Your task to perform on an android device: Go to Wikipedia Image 0: 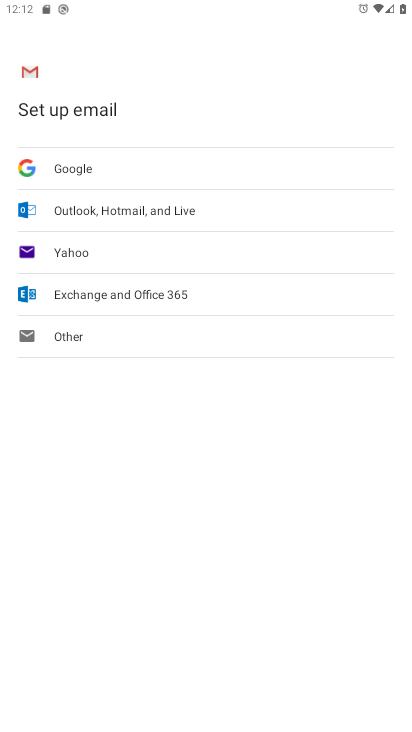
Step 0: press home button
Your task to perform on an android device: Go to Wikipedia Image 1: 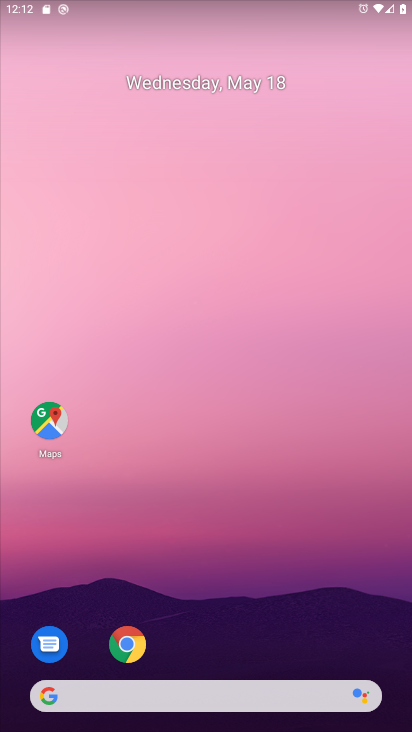
Step 1: click (121, 643)
Your task to perform on an android device: Go to Wikipedia Image 2: 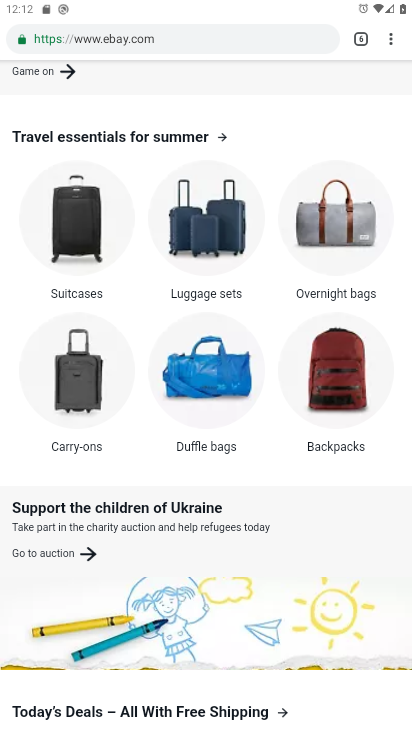
Step 2: click (363, 28)
Your task to perform on an android device: Go to Wikipedia Image 3: 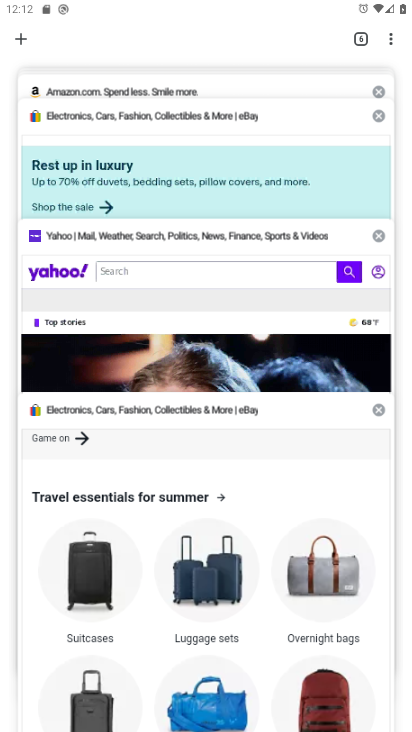
Step 3: drag from (133, 191) to (158, 504)
Your task to perform on an android device: Go to Wikipedia Image 4: 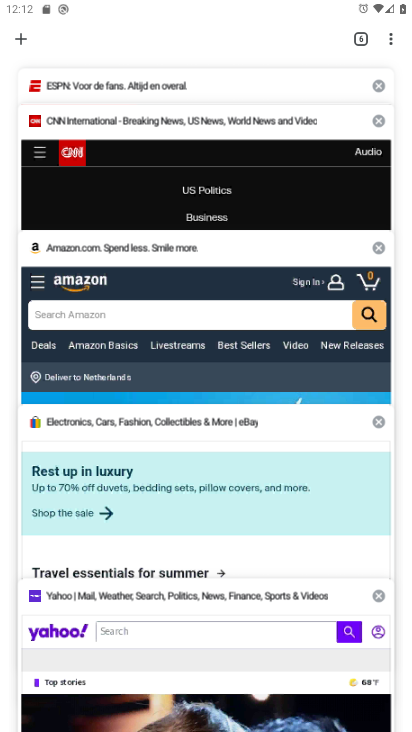
Step 4: drag from (122, 445) to (145, 263)
Your task to perform on an android device: Go to Wikipedia Image 5: 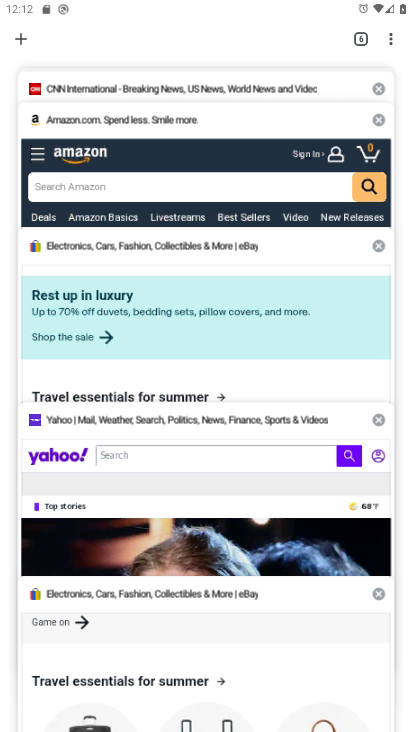
Step 5: drag from (137, 544) to (156, 279)
Your task to perform on an android device: Go to Wikipedia Image 6: 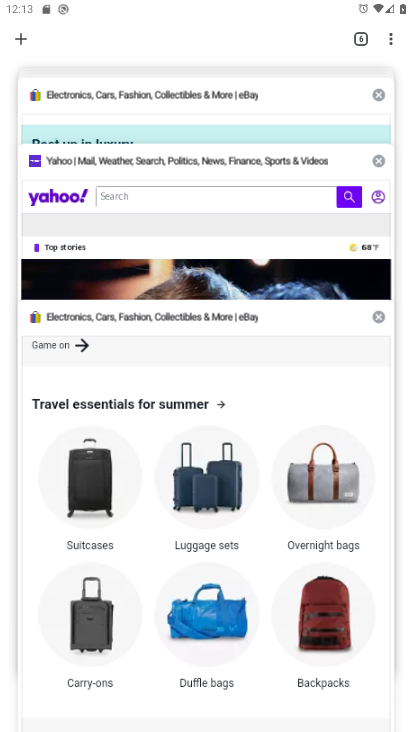
Step 6: click (375, 313)
Your task to perform on an android device: Go to Wikipedia Image 7: 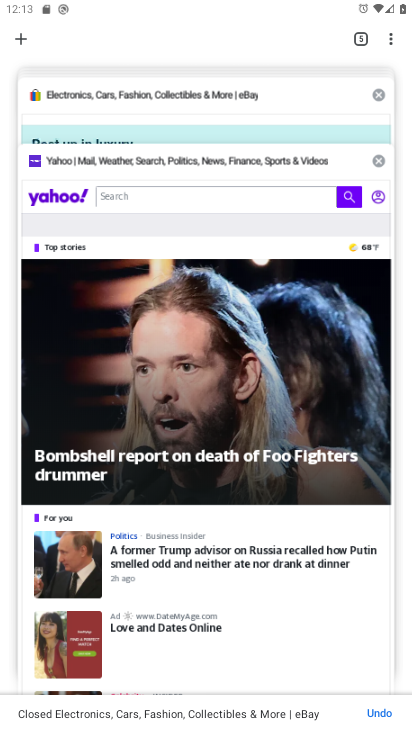
Step 7: click (24, 36)
Your task to perform on an android device: Go to Wikipedia Image 8: 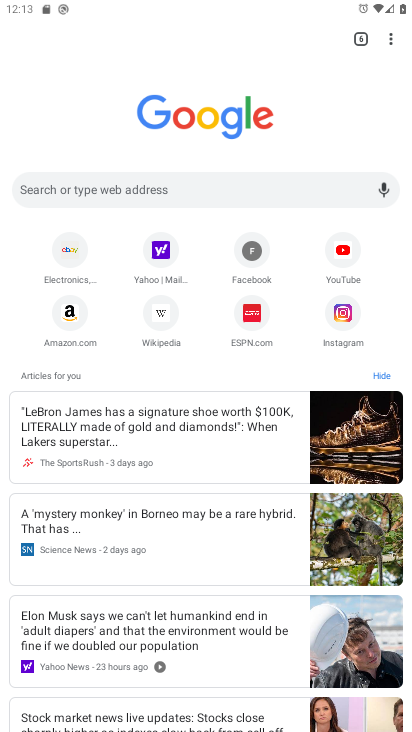
Step 8: click (161, 306)
Your task to perform on an android device: Go to Wikipedia Image 9: 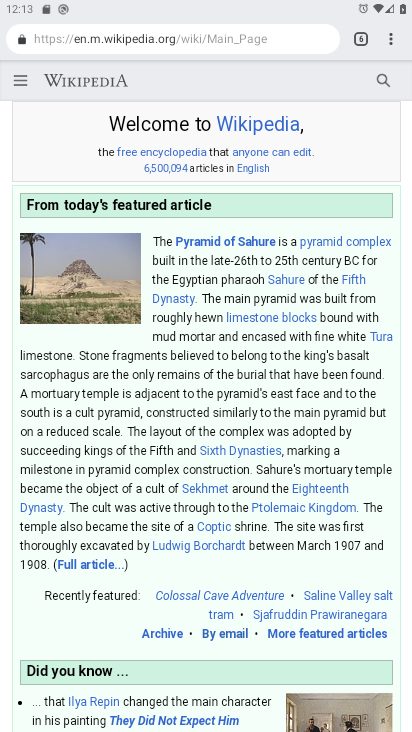
Step 9: drag from (217, 533) to (228, 163)
Your task to perform on an android device: Go to Wikipedia Image 10: 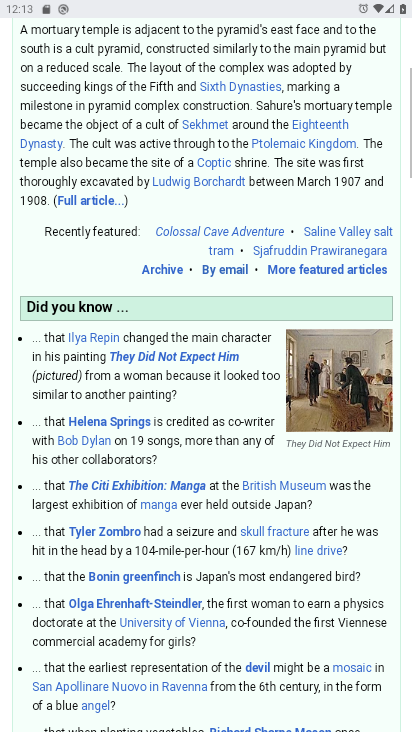
Step 10: click (235, 113)
Your task to perform on an android device: Go to Wikipedia Image 11: 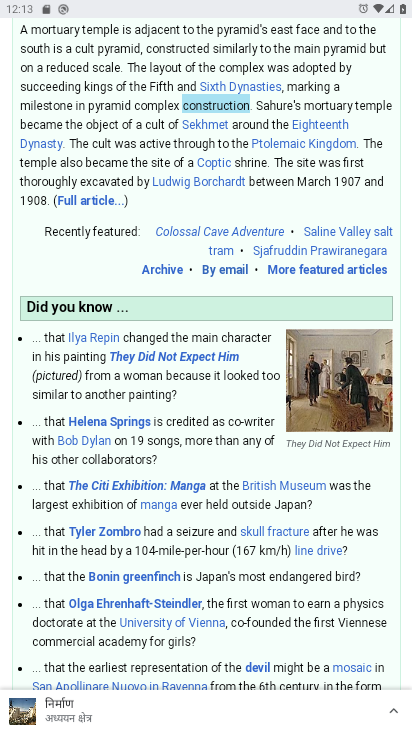
Step 11: task complete